Your task to perform on an android device: When is my next appointment? Image 0: 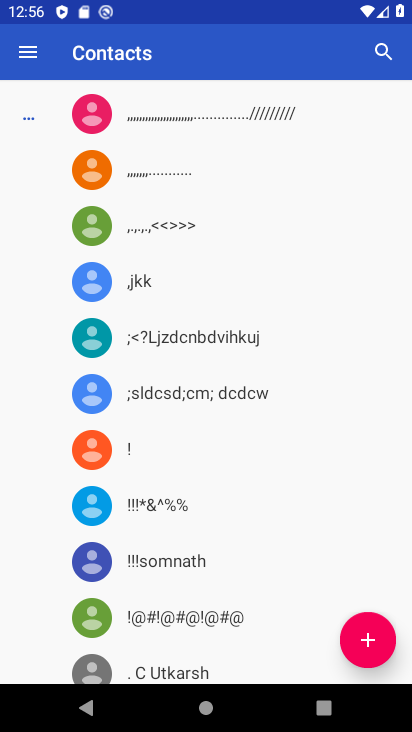
Step 0: press home button
Your task to perform on an android device: When is my next appointment? Image 1: 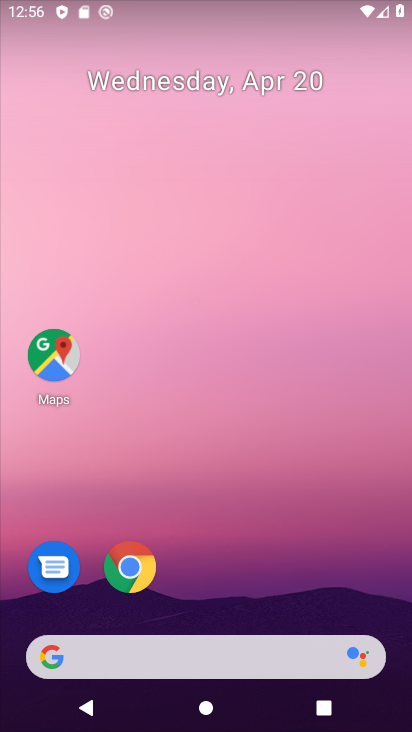
Step 1: drag from (12, 622) to (250, 151)
Your task to perform on an android device: When is my next appointment? Image 2: 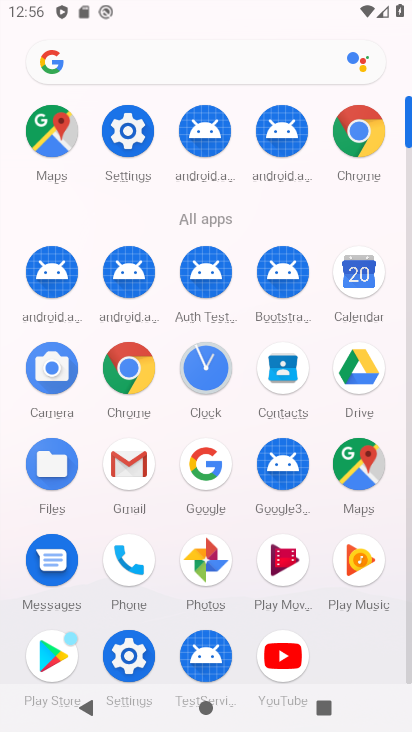
Step 2: click (353, 274)
Your task to perform on an android device: When is my next appointment? Image 3: 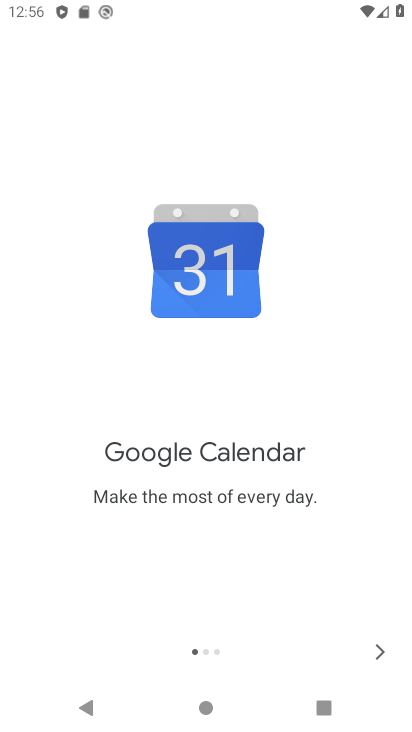
Step 3: click (378, 647)
Your task to perform on an android device: When is my next appointment? Image 4: 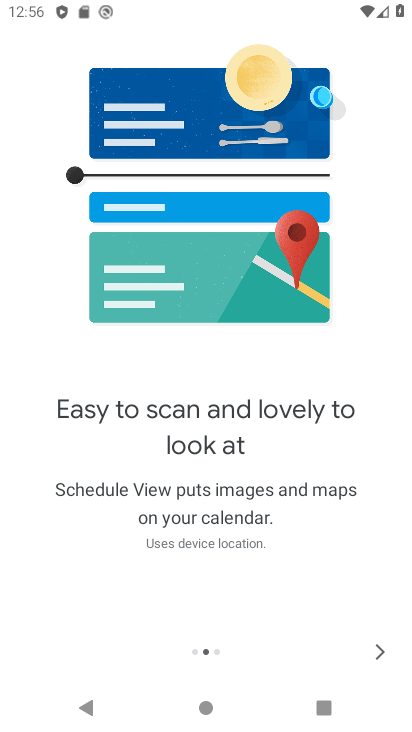
Step 4: click (378, 646)
Your task to perform on an android device: When is my next appointment? Image 5: 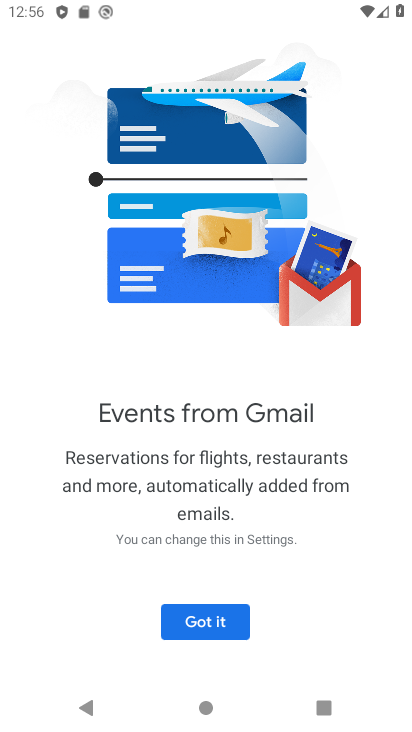
Step 5: click (200, 630)
Your task to perform on an android device: When is my next appointment? Image 6: 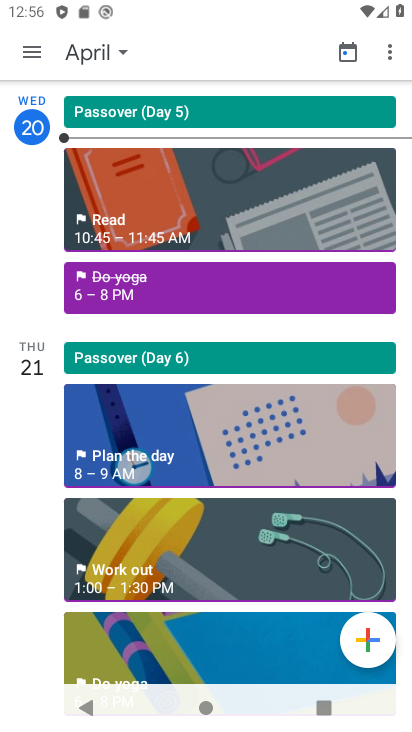
Step 6: task complete